Your task to perform on an android device: allow cookies in the chrome app Image 0: 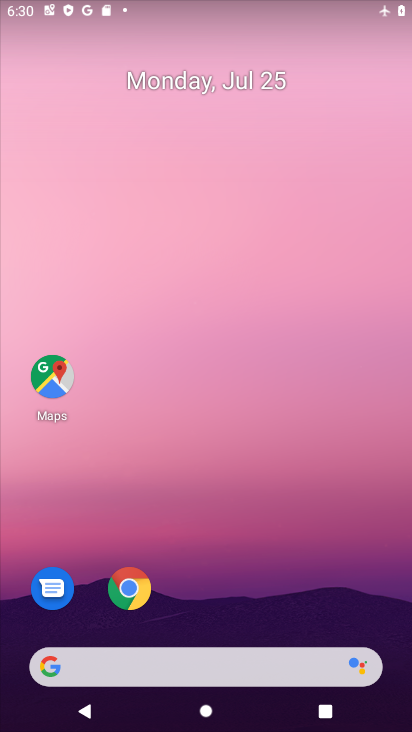
Step 0: click (132, 599)
Your task to perform on an android device: allow cookies in the chrome app Image 1: 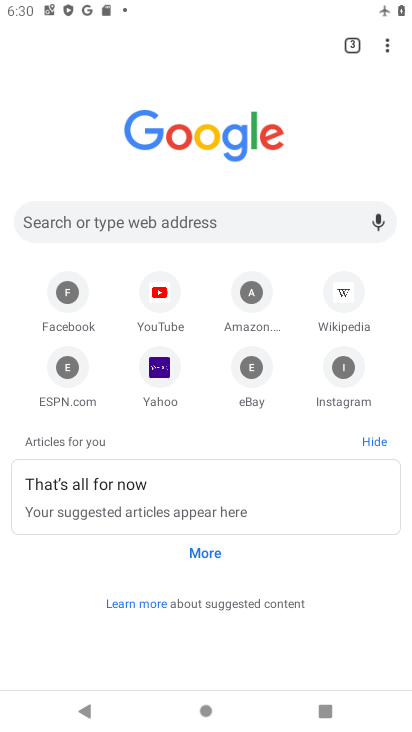
Step 1: click (390, 52)
Your task to perform on an android device: allow cookies in the chrome app Image 2: 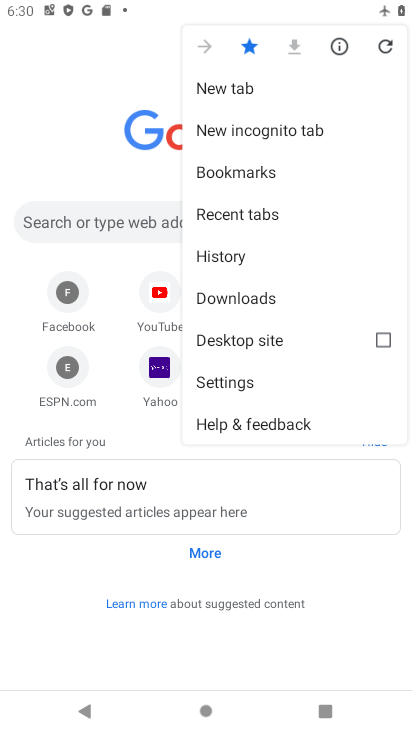
Step 2: click (228, 386)
Your task to perform on an android device: allow cookies in the chrome app Image 3: 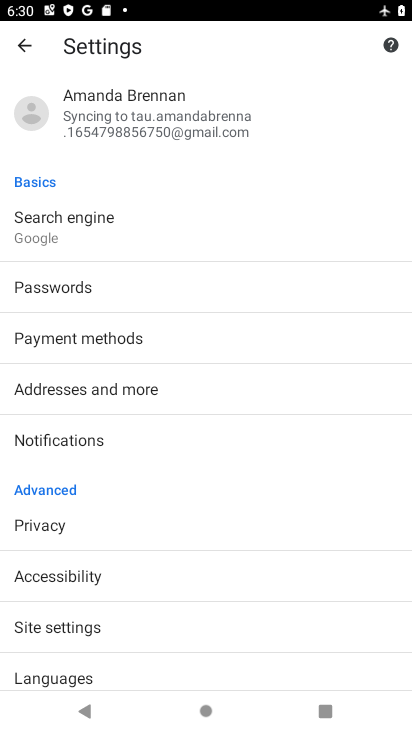
Step 3: drag from (259, 506) to (251, 314)
Your task to perform on an android device: allow cookies in the chrome app Image 4: 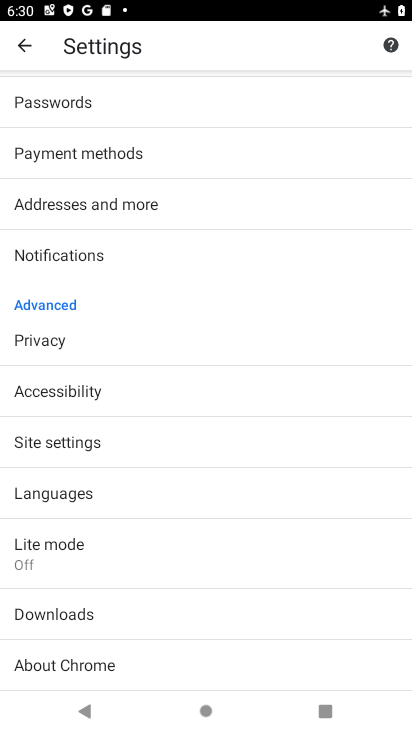
Step 4: drag from (285, 476) to (282, 331)
Your task to perform on an android device: allow cookies in the chrome app Image 5: 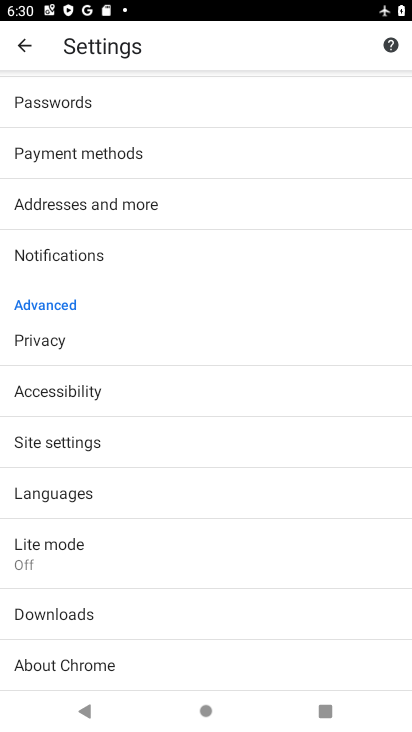
Step 5: click (145, 444)
Your task to perform on an android device: allow cookies in the chrome app Image 6: 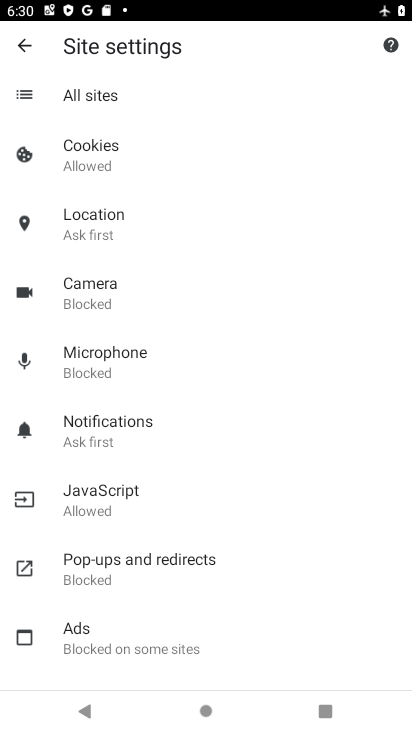
Step 6: click (133, 163)
Your task to perform on an android device: allow cookies in the chrome app Image 7: 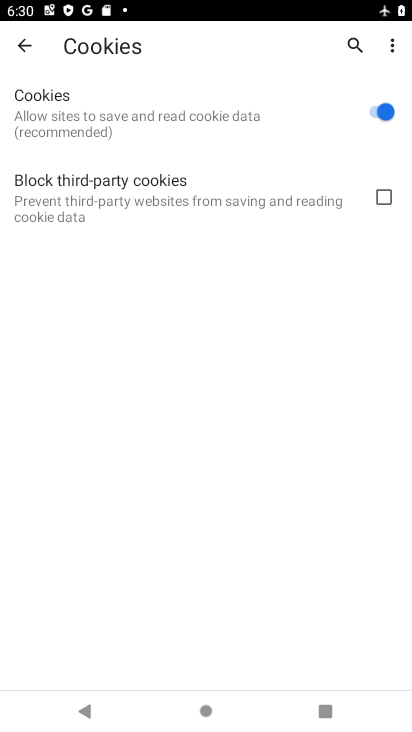
Step 7: click (378, 114)
Your task to perform on an android device: allow cookies in the chrome app Image 8: 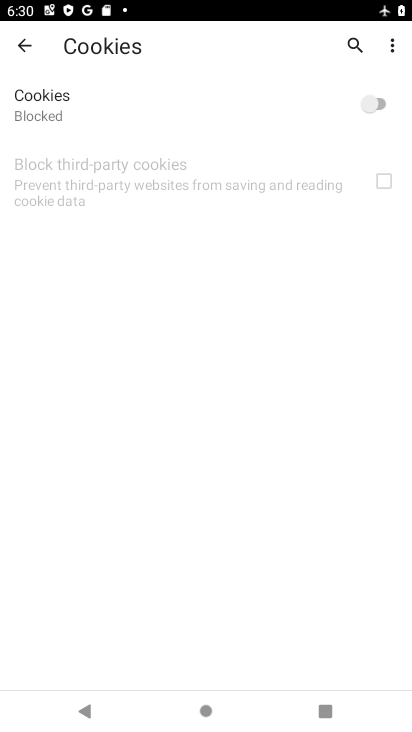
Step 8: task complete